Your task to perform on an android device: Open battery settings Image 0: 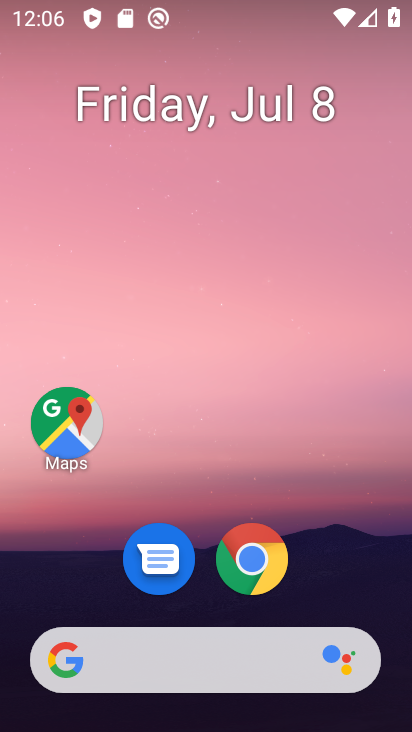
Step 0: drag from (206, 605) to (198, 116)
Your task to perform on an android device: Open battery settings Image 1: 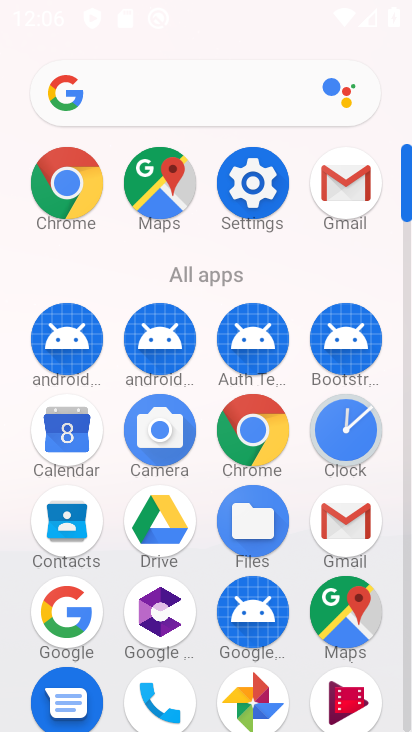
Step 1: click (267, 193)
Your task to perform on an android device: Open battery settings Image 2: 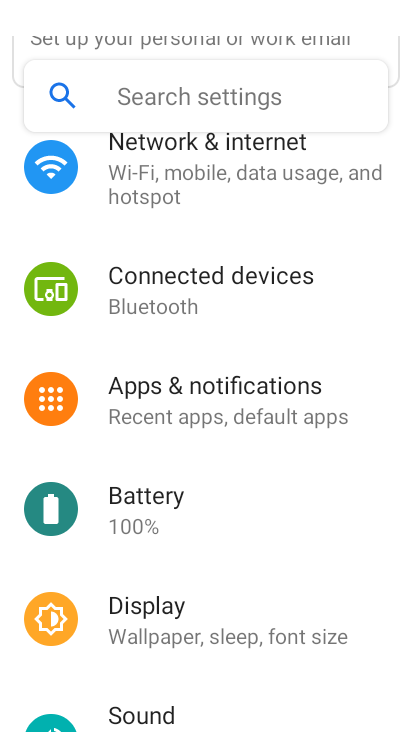
Step 2: click (173, 476)
Your task to perform on an android device: Open battery settings Image 3: 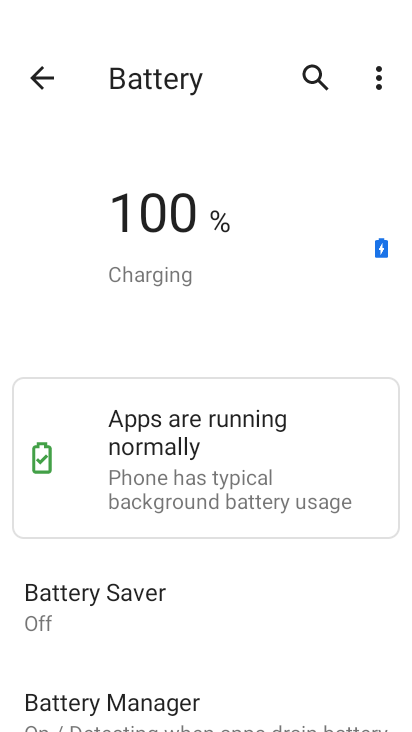
Step 3: task complete